Your task to perform on an android device: visit the assistant section in the google photos Image 0: 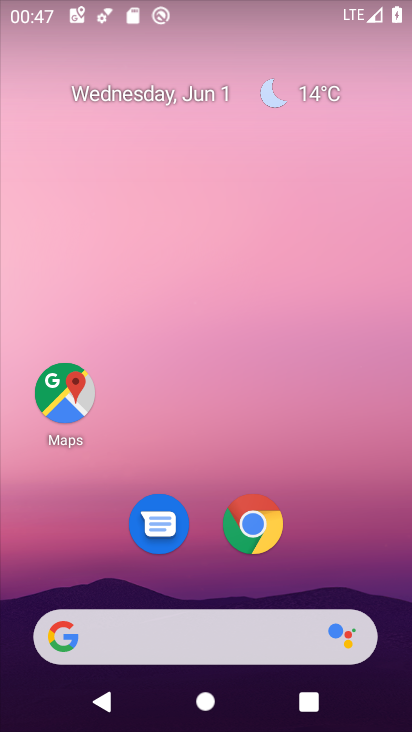
Step 0: drag from (289, 495) to (252, 56)
Your task to perform on an android device: visit the assistant section in the google photos Image 1: 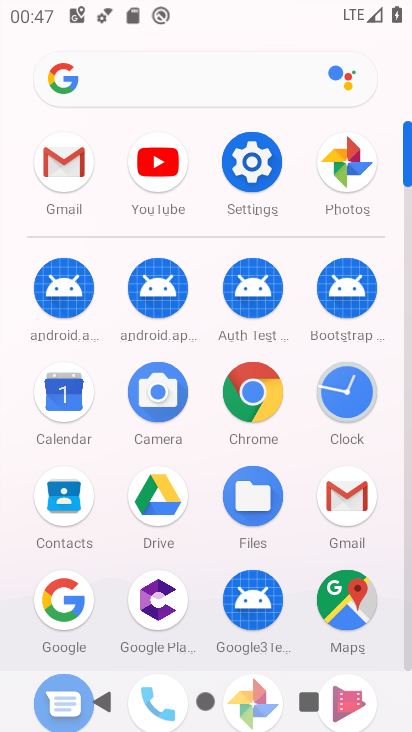
Step 1: click (328, 155)
Your task to perform on an android device: visit the assistant section in the google photos Image 2: 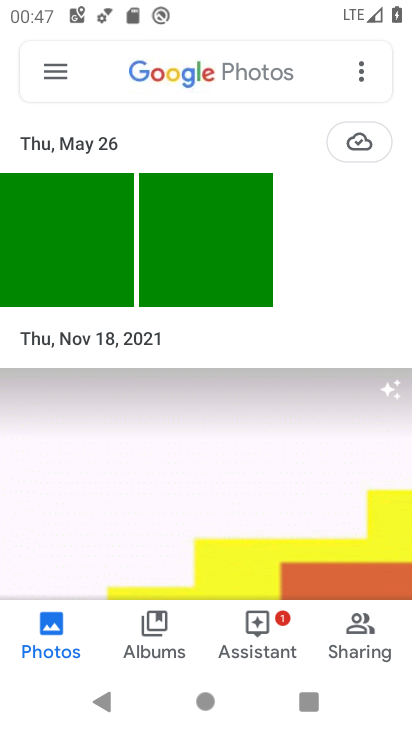
Step 2: click (261, 621)
Your task to perform on an android device: visit the assistant section in the google photos Image 3: 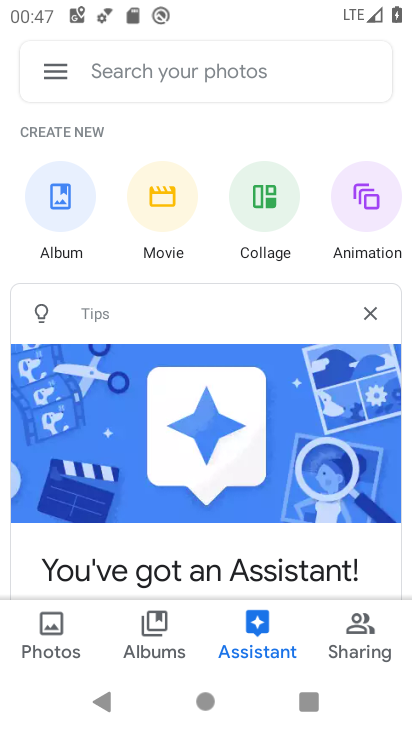
Step 3: task complete